Your task to perform on an android device: check battery use Image 0: 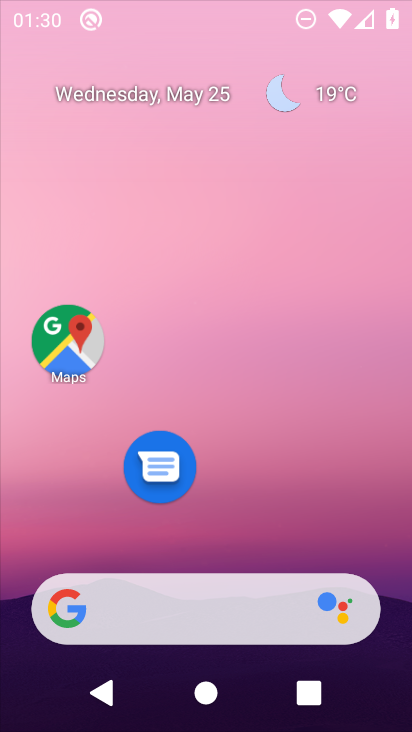
Step 0: click (308, 55)
Your task to perform on an android device: check battery use Image 1: 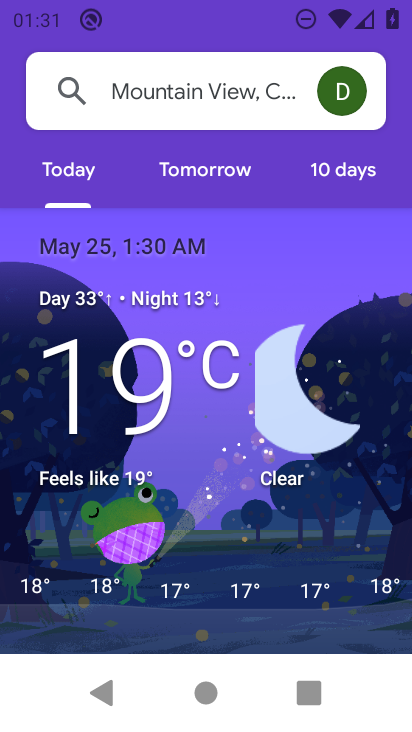
Step 1: drag from (314, 539) to (404, 335)
Your task to perform on an android device: check battery use Image 2: 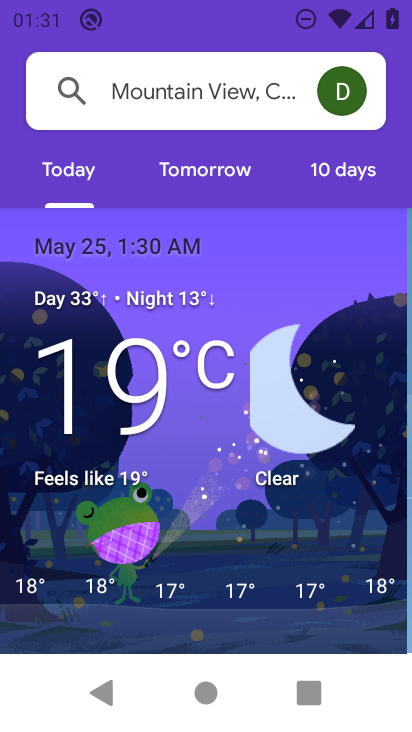
Step 2: drag from (259, 505) to (309, 345)
Your task to perform on an android device: check battery use Image 3: 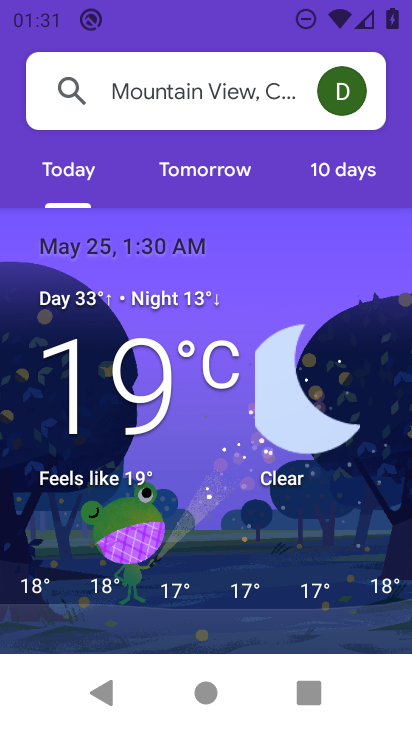
Step 3: drag from (264, 561) to (336, 308)
Your task to perform on an android device: check battery use Image 4: 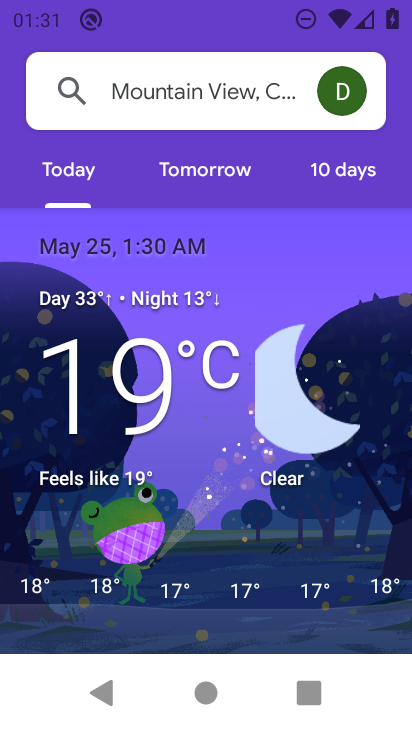
Step 4: drag from (385, 227) to (349, 648)
Your task to perform on an android device: check battery use Image 5: 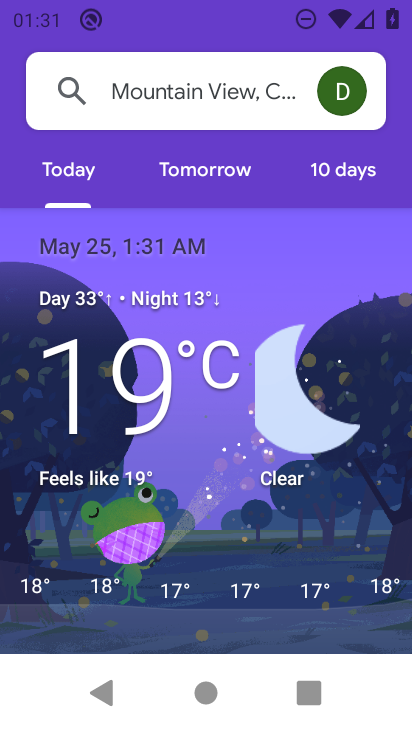
Step 5: drag from (262, 488) to (342, 111)
Your task to perform on an android device: check battery use Image 6: 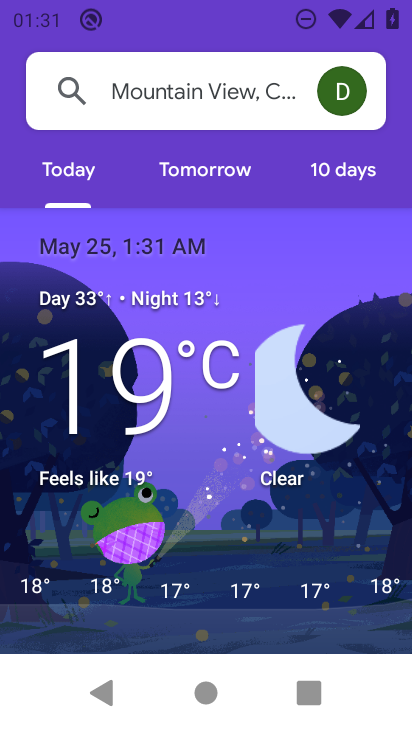
Step 6: press home button
Your task to perform on an android device: check battery use Image 7: 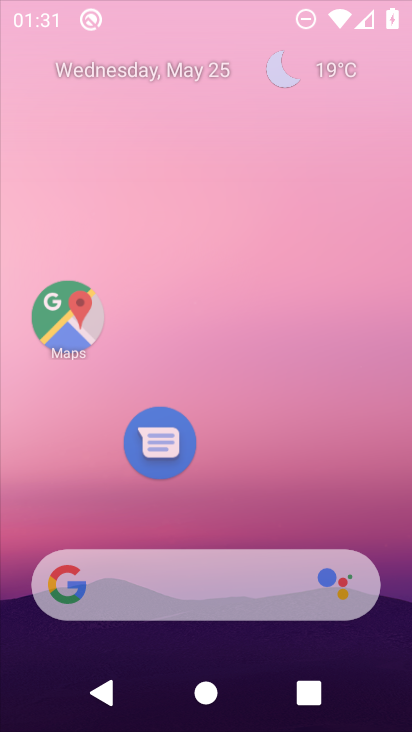
Step 7: drag from (156, 514) to (1, 487)
Your task to perform on an android device: check battery use Image 8: 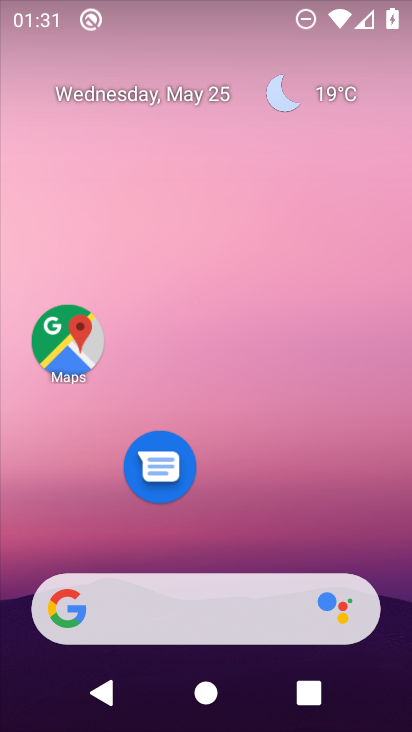
Step 8: drag from (234, 513) to (262, 136)
Your task to perform on an android device: check battery use Image 9: 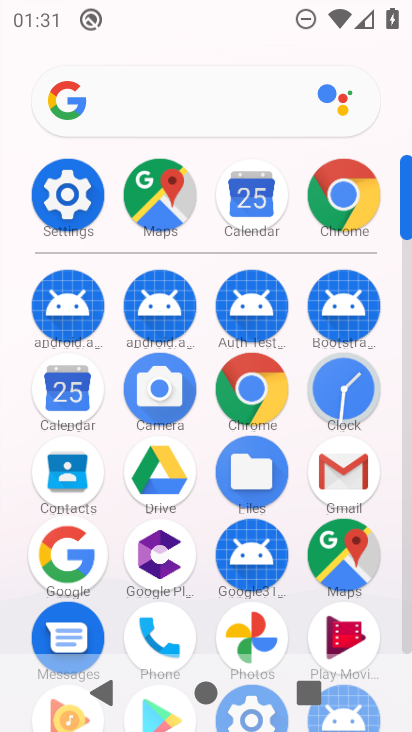
Step 9: click (69, 186)
Your task to perform on an android device: check battery use Image 10: 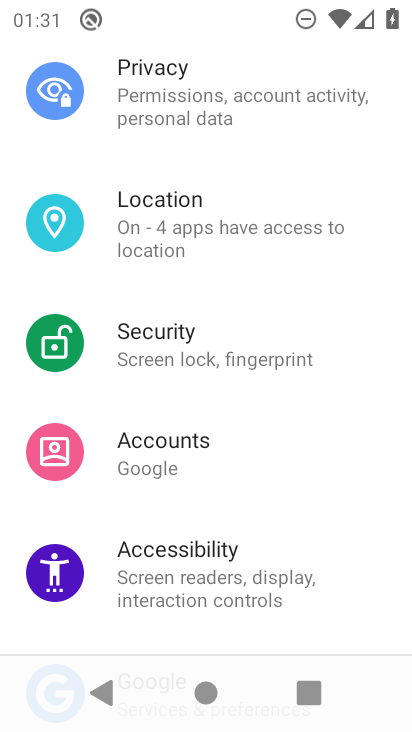
Step 10: drag from (206, 190) to (274, 722)
Your task to perform on an android device: check battery use Image 11: 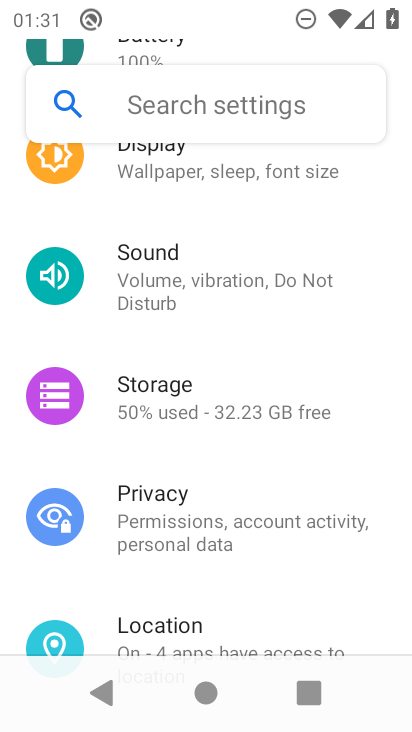
Step 11: drag from (225, 302) to (350, 719)
Your task to perform on an android device: check battery use Image 12: 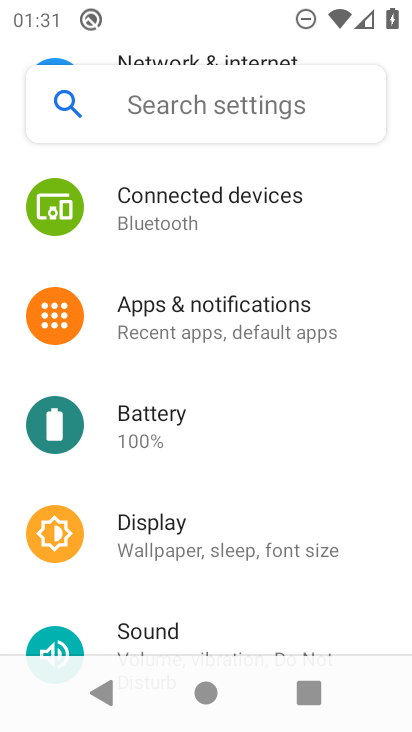
Step 12: click (210, 426)
Your task to perform on an android device: check battery use Image 13: 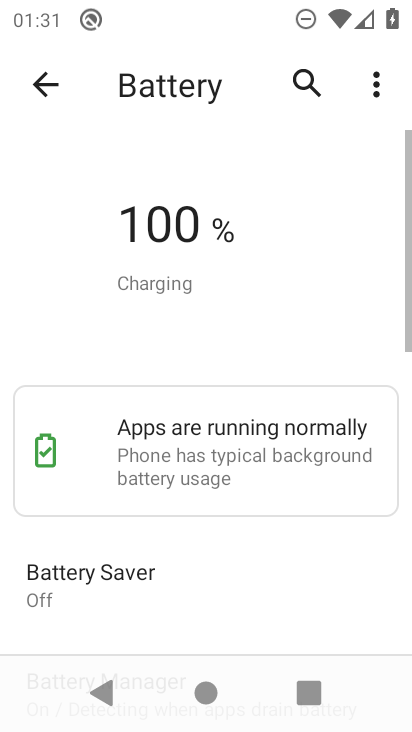
Step 13: drag from (275, 600) to (241, 293)
Your task to perform on an android device: check battery use Image 14: 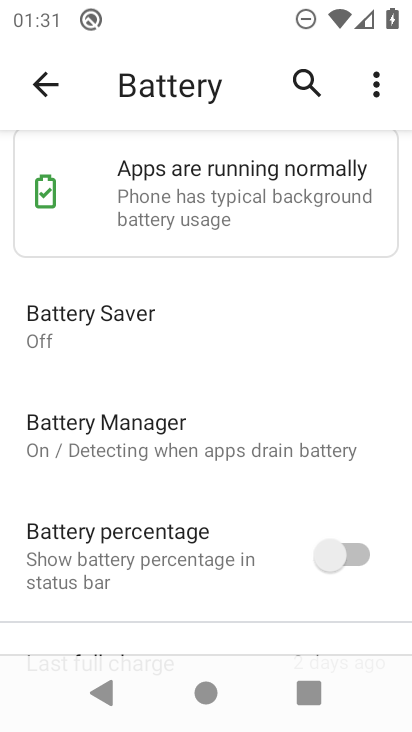
Step 14: click (380, 86)
Your task to perform on an android device: check battery use Image 15: 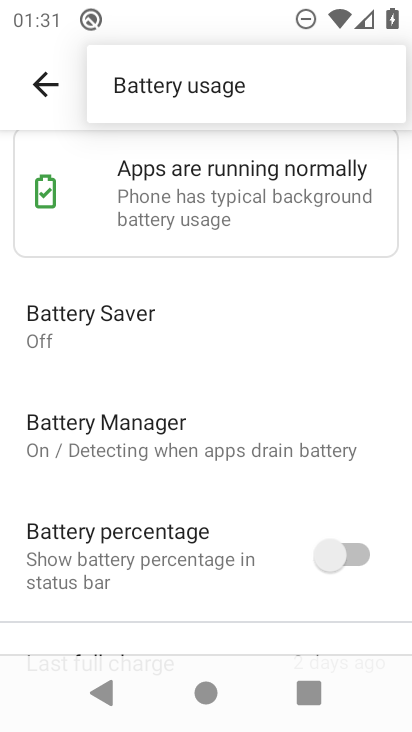
Step 15: click (184, 92)
Your task to perform on an android device: check battery use Image 16: 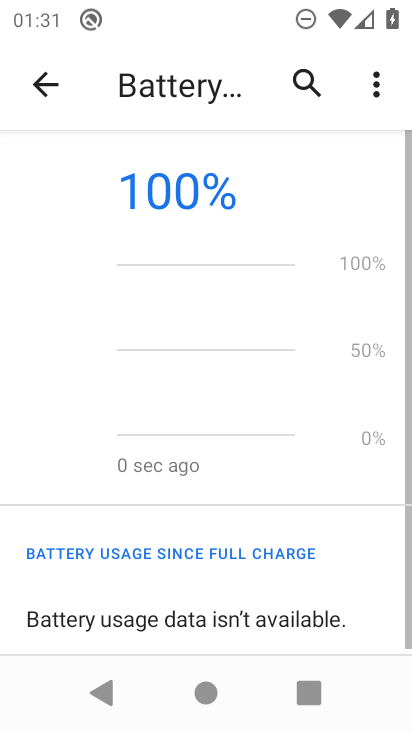
Step 16: task complete